Your task to perform on an android device: Go to CNN.com Image 0: 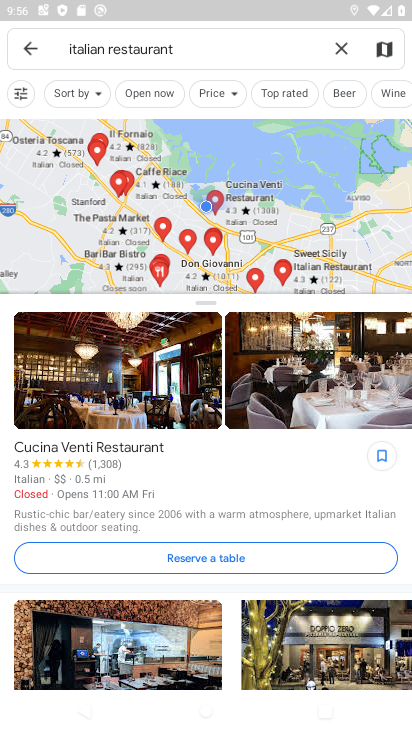
Step 0: press home button
Your task to perform on an android device: Go to CNN.com Image 1: 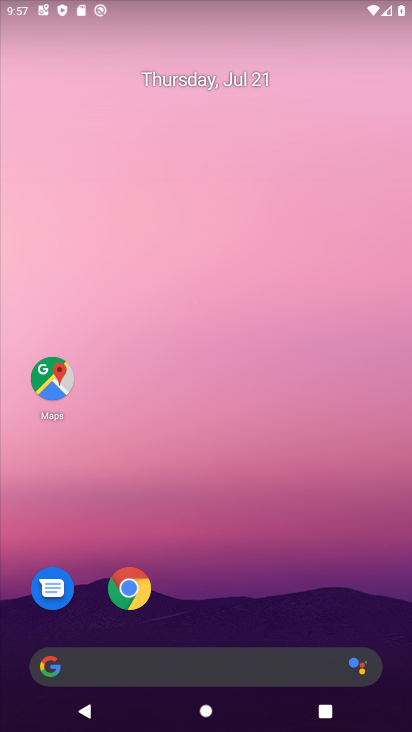
Step 1: click (140, 589)
Your task to perform on an android device: Go to CNN.com Image 2: 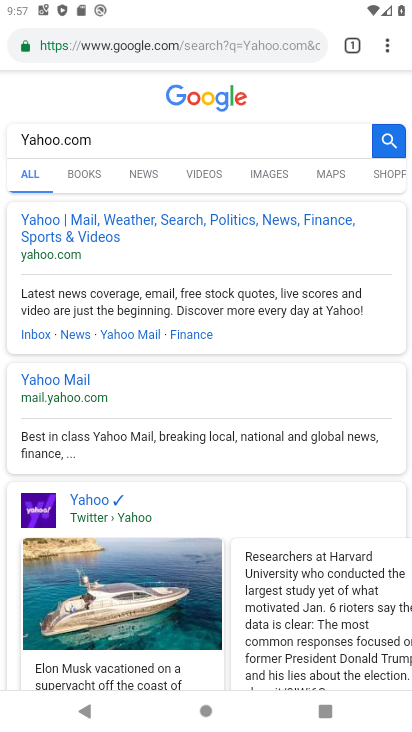
Step 2: click (301, 49)
Your task to perform on an android device: Go to CNN.com Image 3: 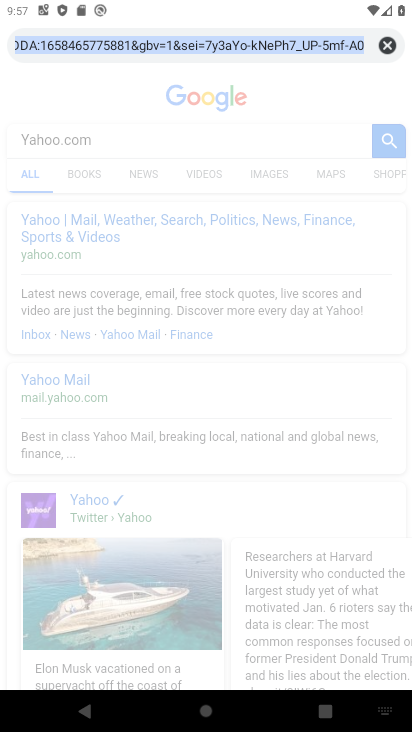
Step 3: click (383, 50)
Your task to perform on an android device: Go to CNN.com Image 4: 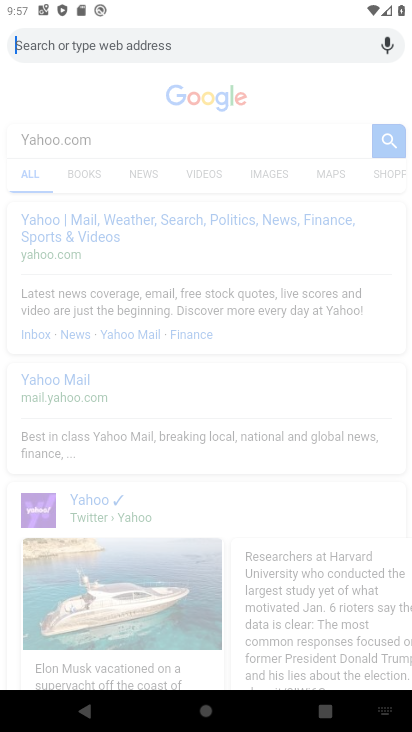
Step 4: type "CNN.com"
Your task to perform on an android device: Go to CNN.com Image 5: 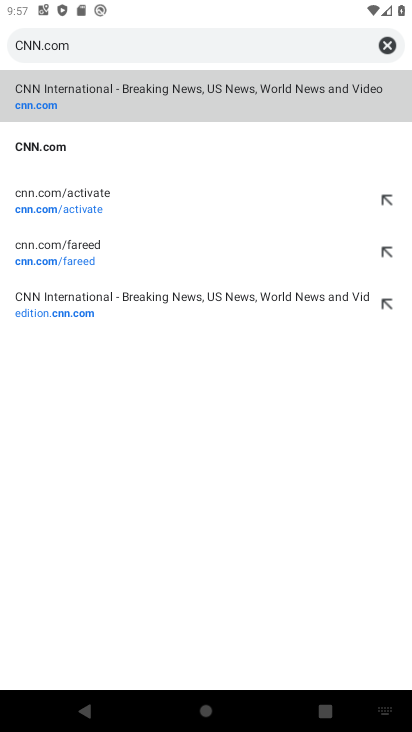
Step 5: click (51, 143)
Your task to perform on an android device: Go to CNN.com Image 6: 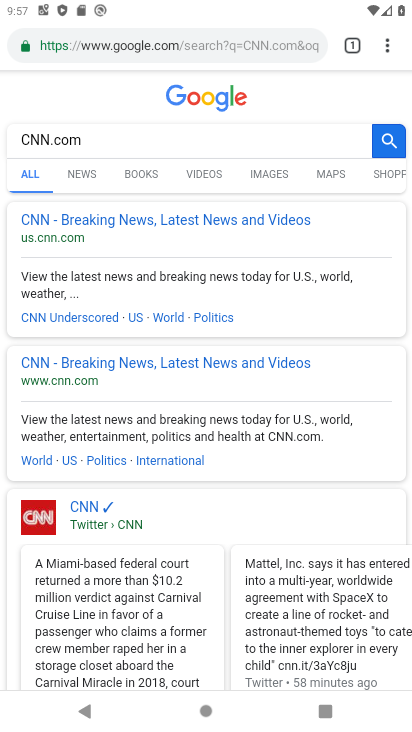
Step 6: click (109, 218)
Your task to perform on an android device: Go to CNN.com Image 7: 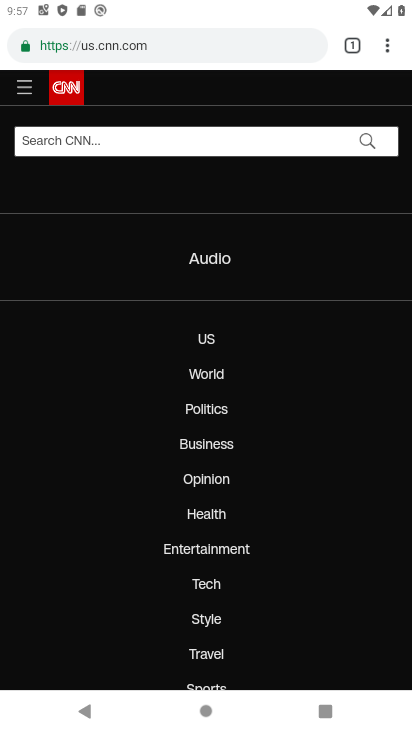
Step 7: task complete